Your task to perform on an android device: Open the phone app and click the voicemail tab. Image 0: 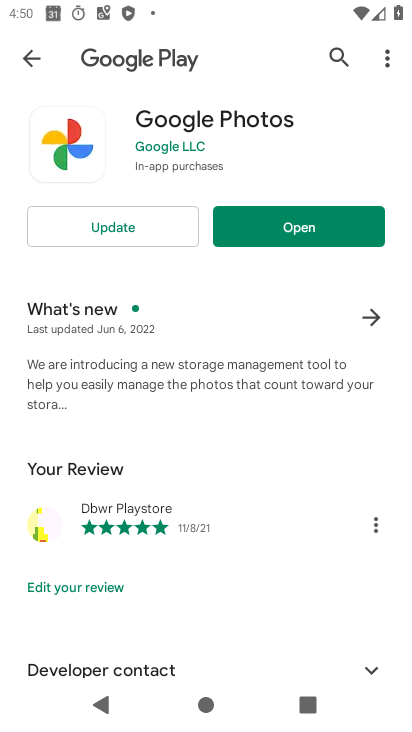
Step 0: press home button
Your task to perform on an android device: Open the phone app and click the voicemail tab. Image 1: 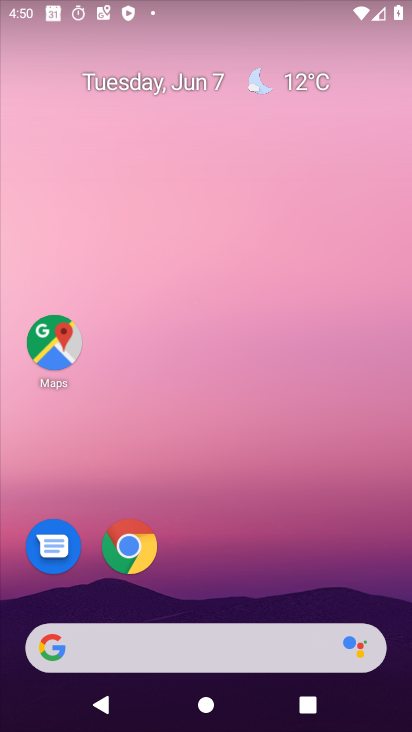
Step 1: drag from (346, 244) to (404, 195)
Your task to perform on an android device: Open the phone app and click the voicemail tab. Image 2: 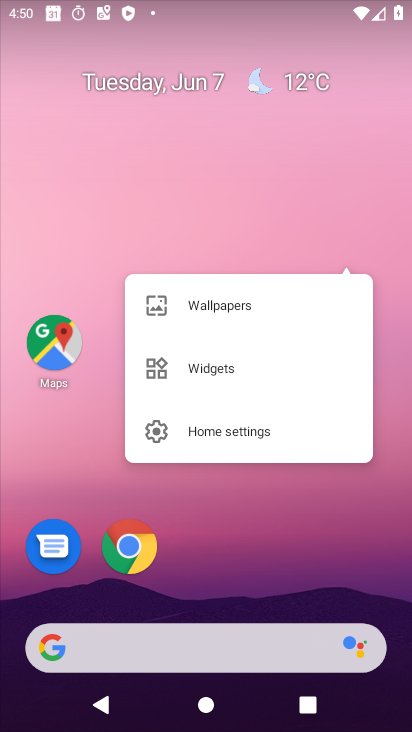
Step 2: click (222, 528)
Your task to perform on an android device: Open the phone app and click the voicemail tab. Image 3: 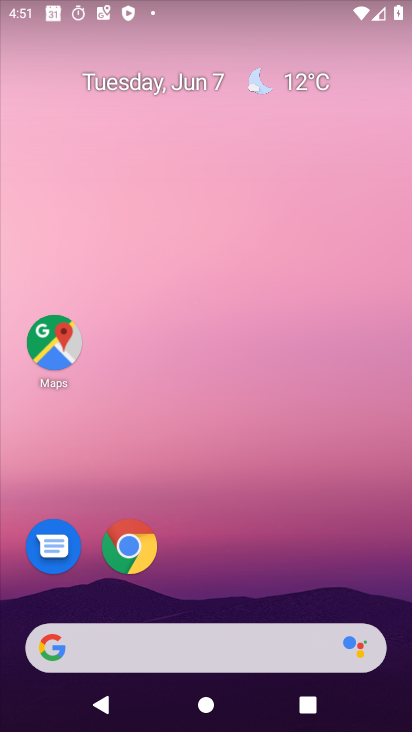
Step 3: drag from (158, 620) to (185, 166)
Your task to perform on an android device: Open the phone app and click the voicemail tab. Image 4: 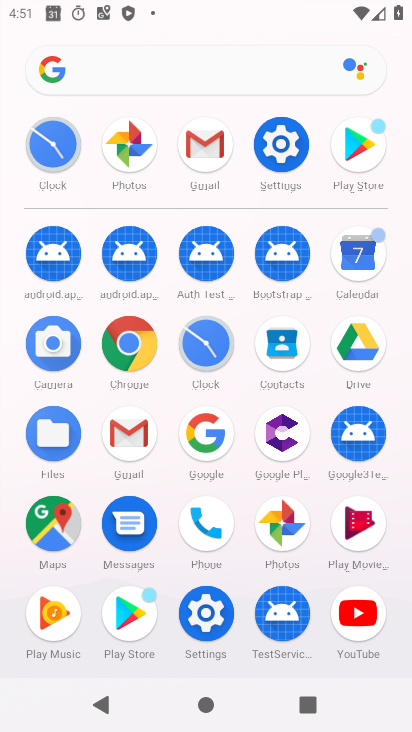
Step 4: click (202, 538)
Your task to perform on an android device: Open the phone app and click the voicemail tab. Image 5: 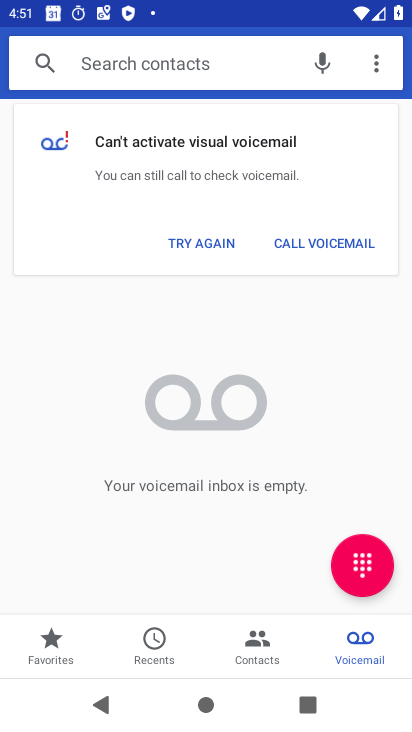
Step 5: task complete